Your task to perform on an android device: uninstall "Upside-Cash back on gas & food" Image 0: 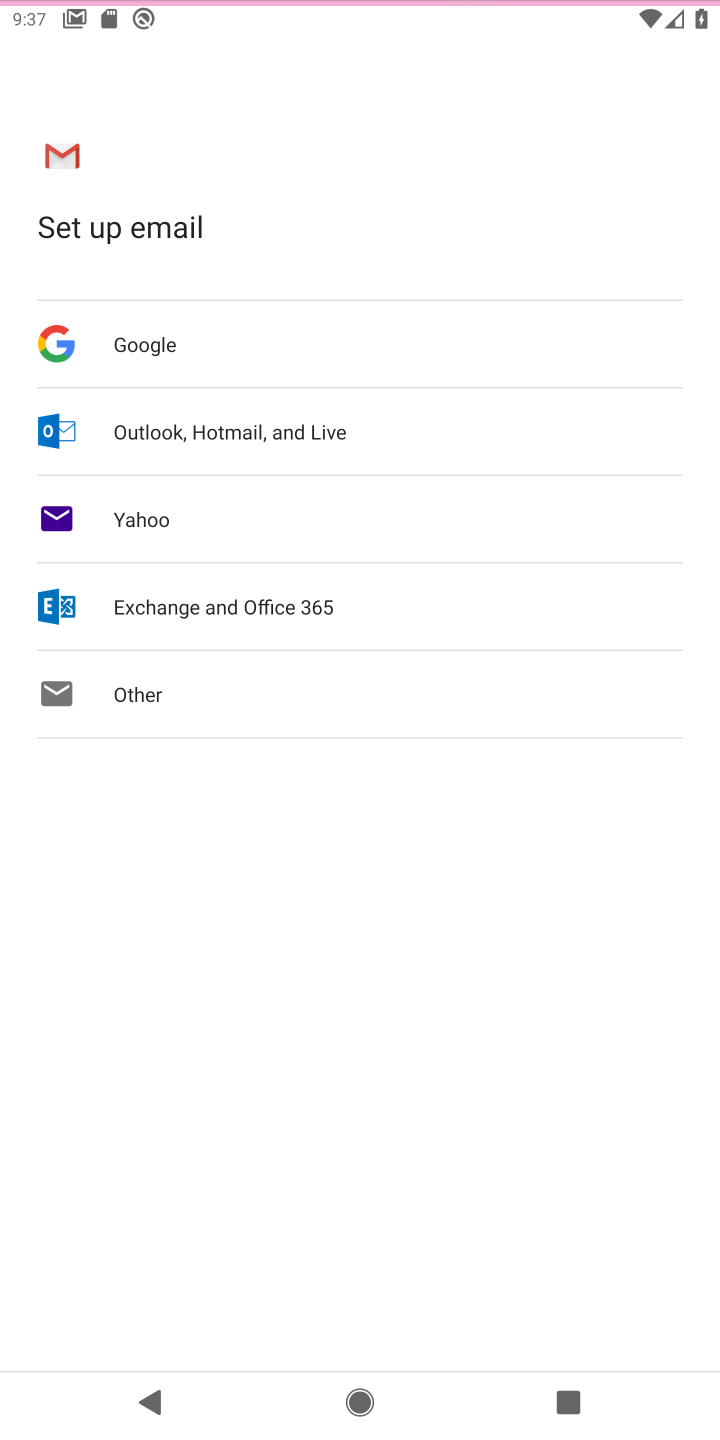
Step 0: click (175, 344)
Your task to perform on an android device: uninstall "Upside-Cash back on gas & food" Image 1: 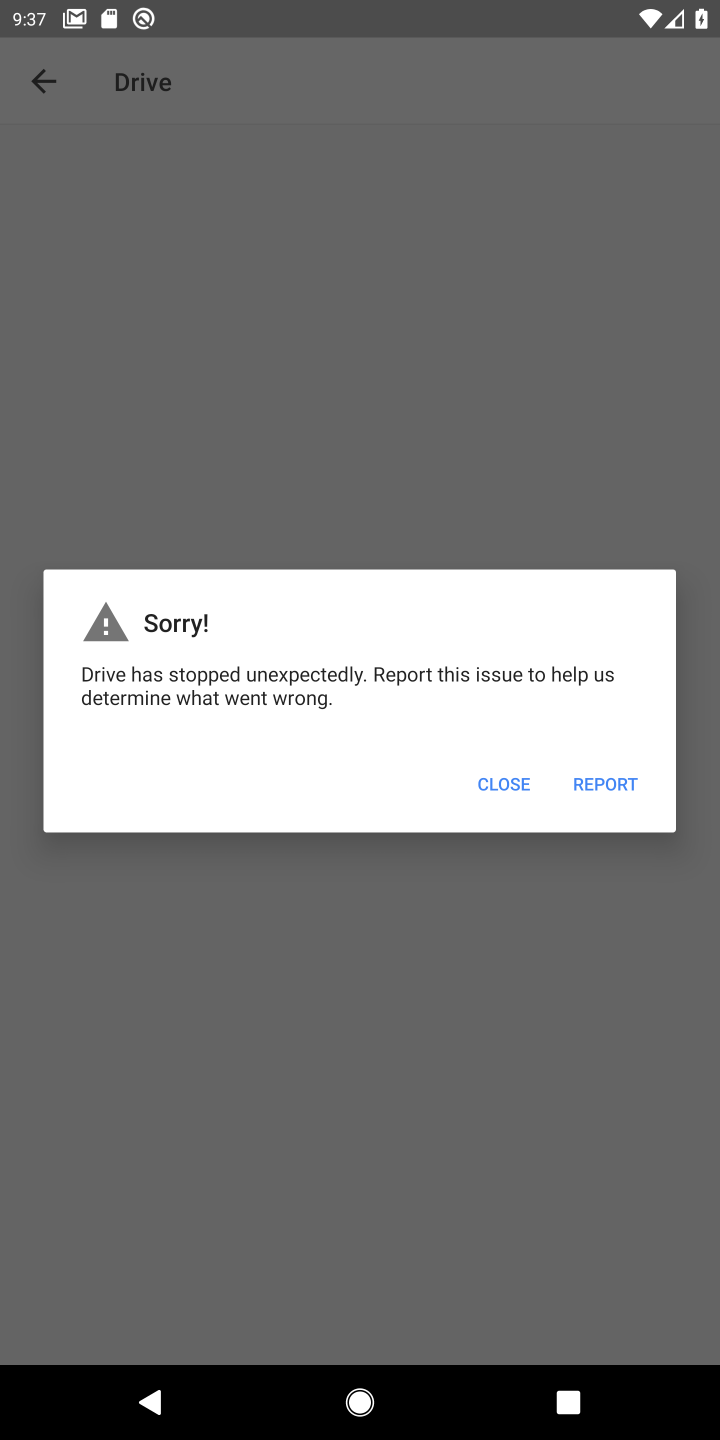
Step 1: press home button
Your task to perform on an android device: uninstall "Upside-Cash back on gas & food" Image 2: 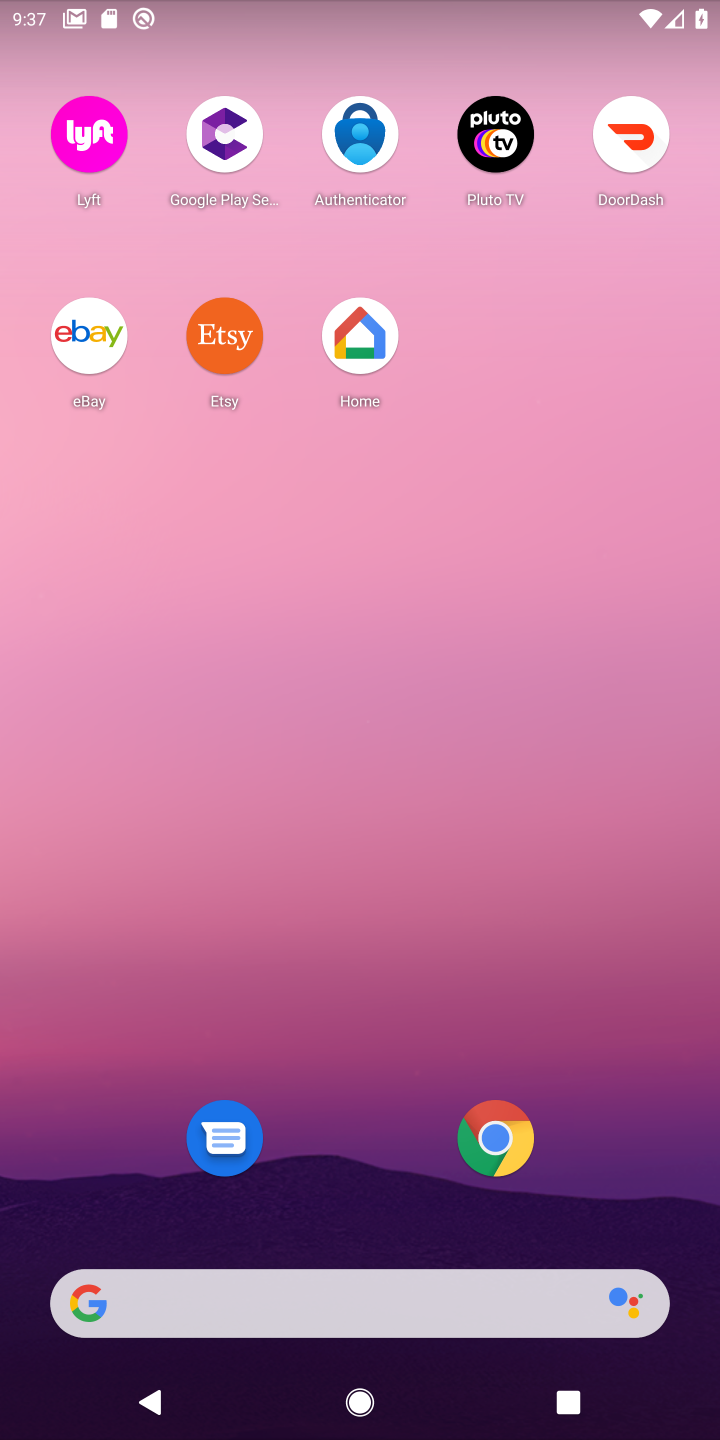
Step 2: drag from (347, 1001) to (158, 138)
Your task to perform on an android device: uninstall "Upside-Cash back on gas & food" Image 3: 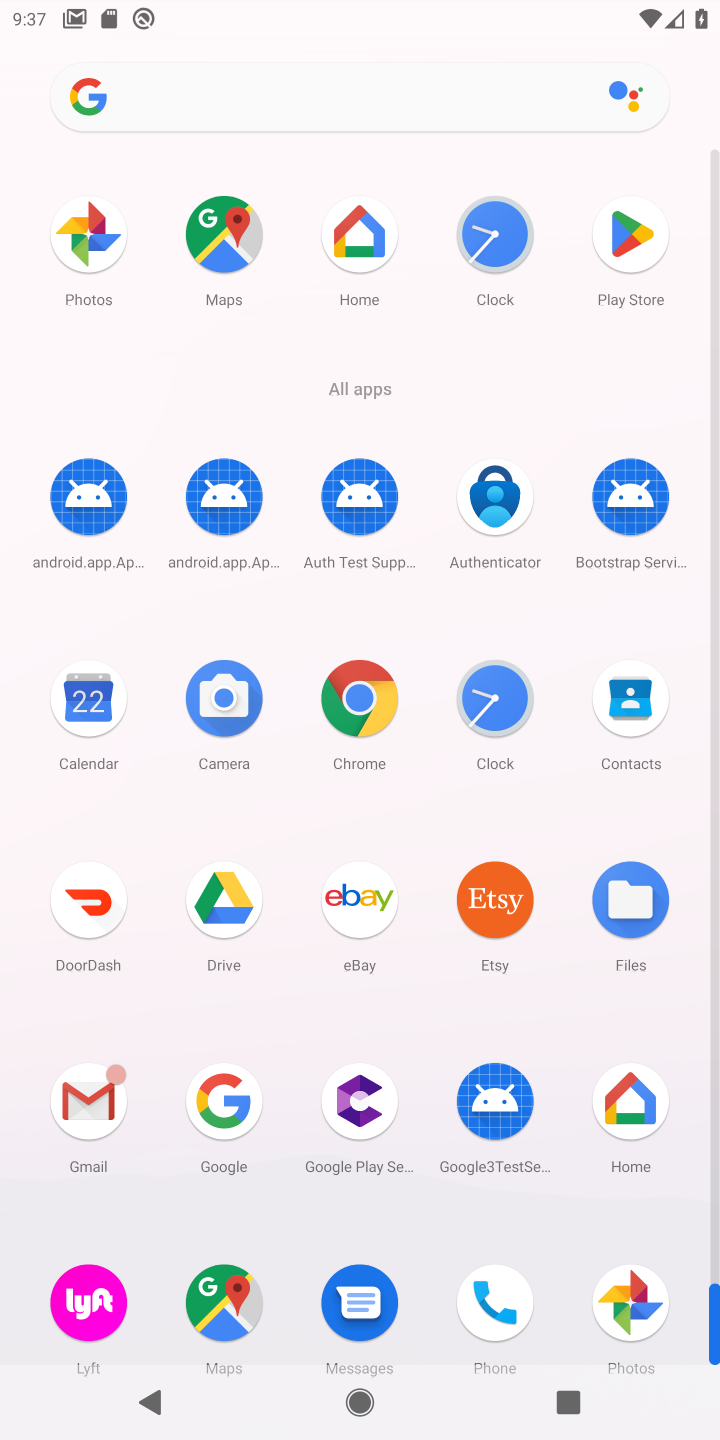
Step 3: click (615, 249)
Your task to perform on an android device: uninstall "Upside-Cash back on gas & food" Image 4: 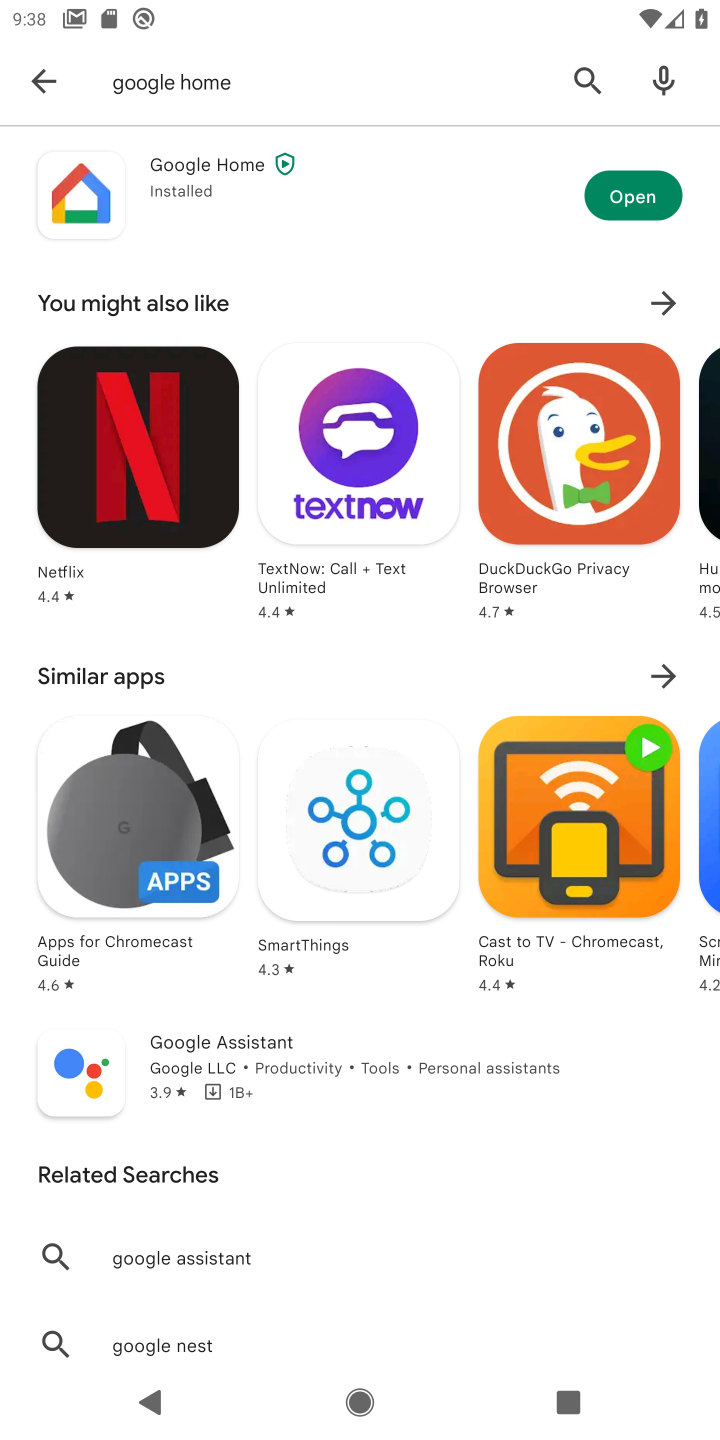
Step 4: type "Upside-Cash back "
Your task to perform on an android device: uninstall "Upside-Cash back on gas & food" Image 5: 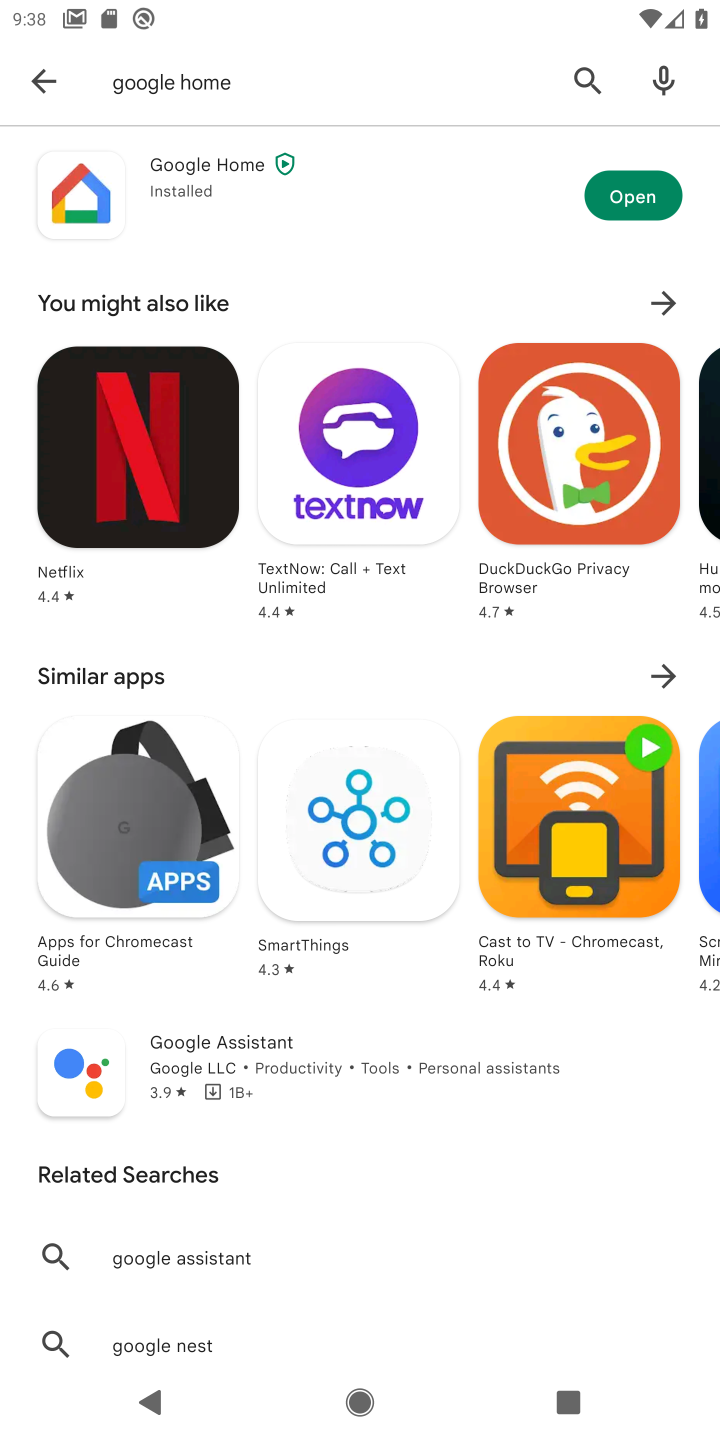
Step 5: type ""
Your task to perform on an android device: uninstall "Upside-Cash back on gas & food" Image 6: 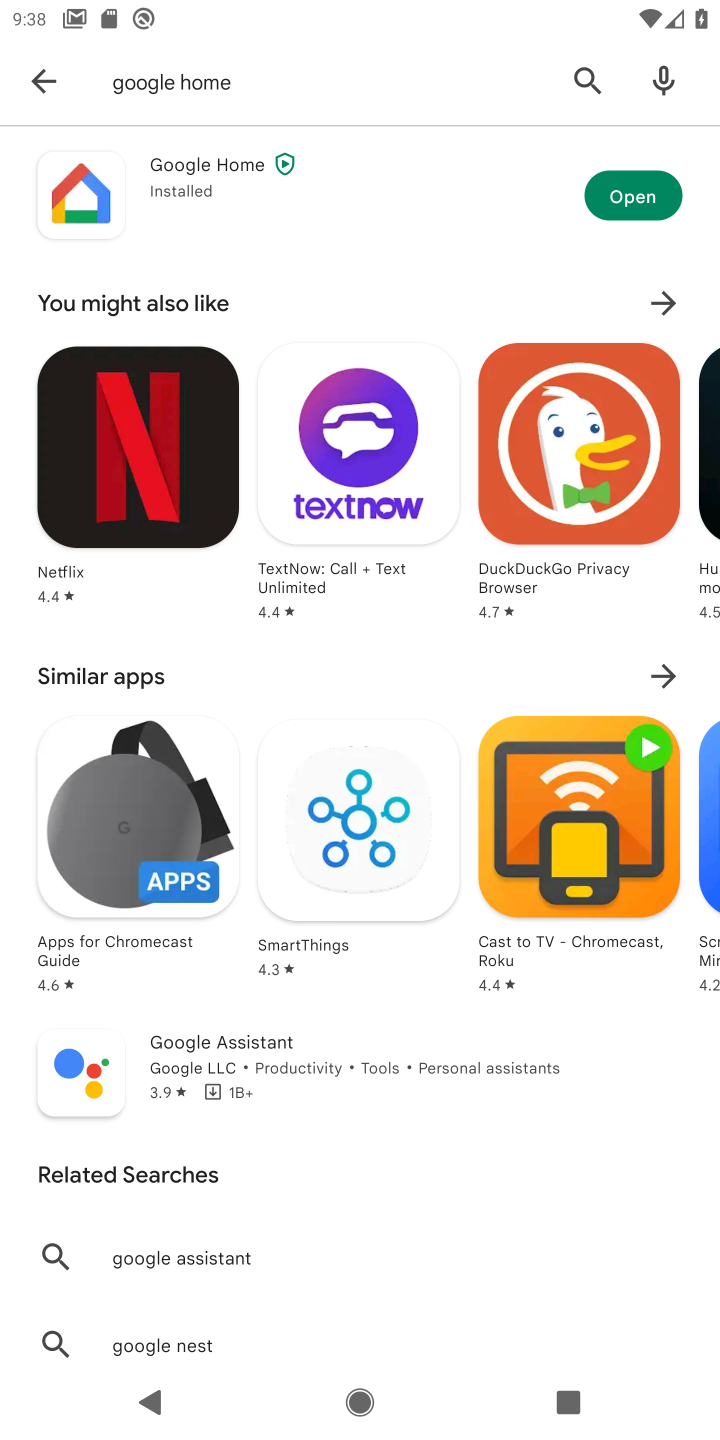
Step 6: click (576, 86)
Your task to perform on an android device: uninstall "Upside-Cash back on gas & food" Image 7: 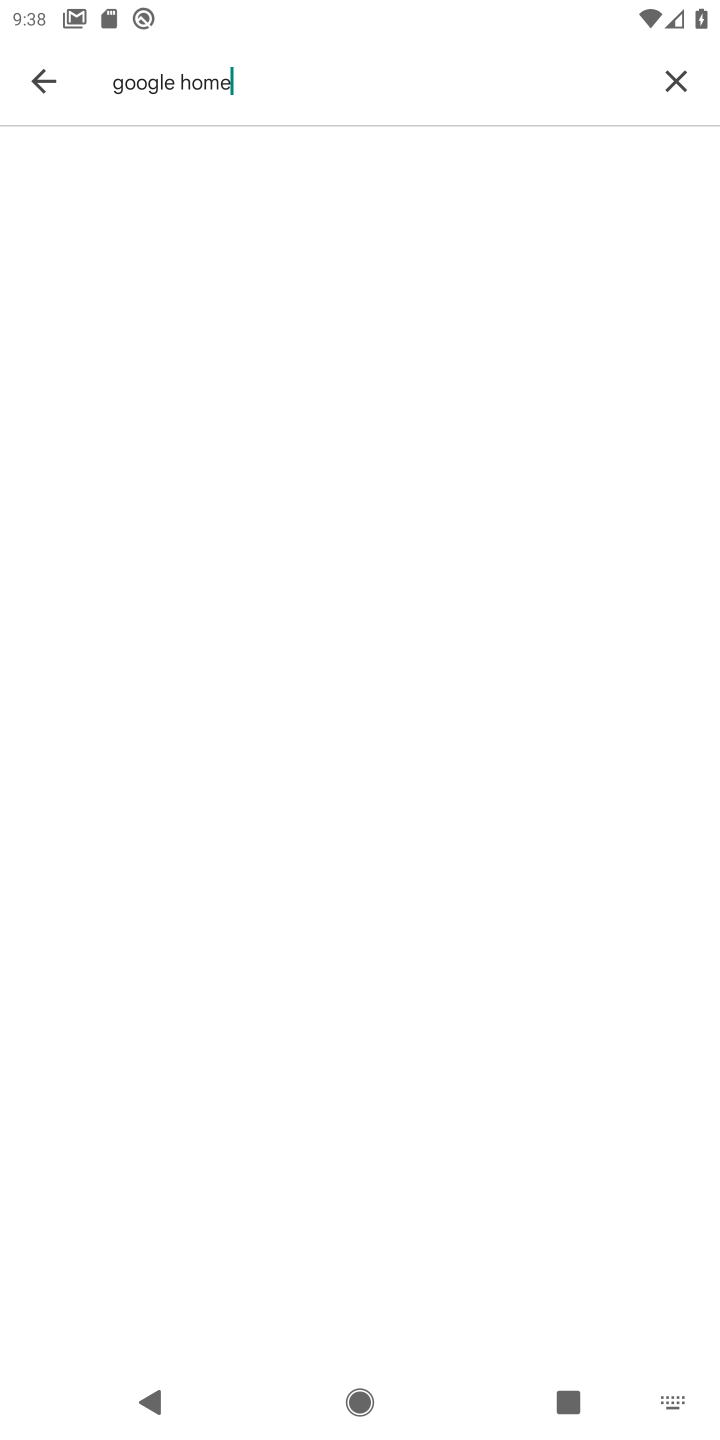
Step 7: click (579, 77)
Your task to perform on an android device: uninstall "Upside-Cash back on gas & food" Image 8: 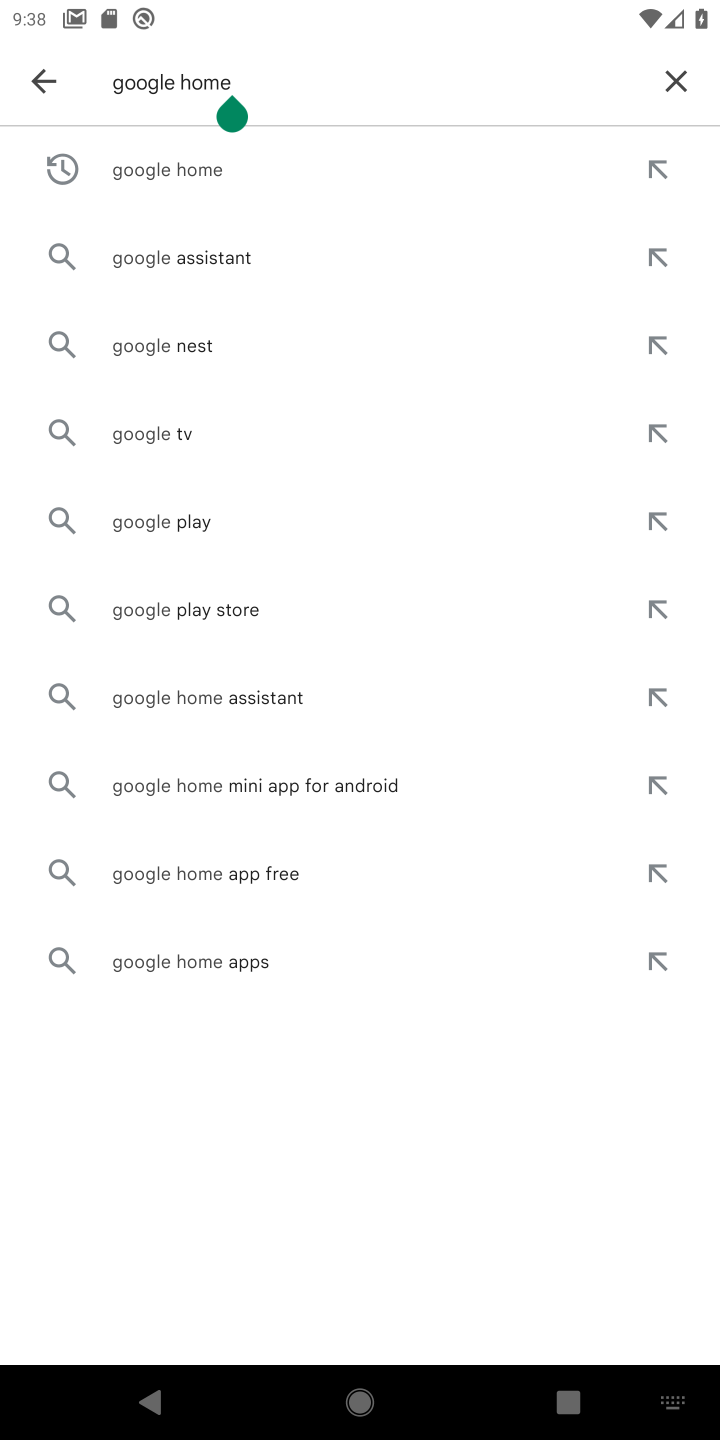
Step 8: click (671, 77)
Your task to perform on an android device: uninstall "Upside-Cash back on gas & food" Image 9: 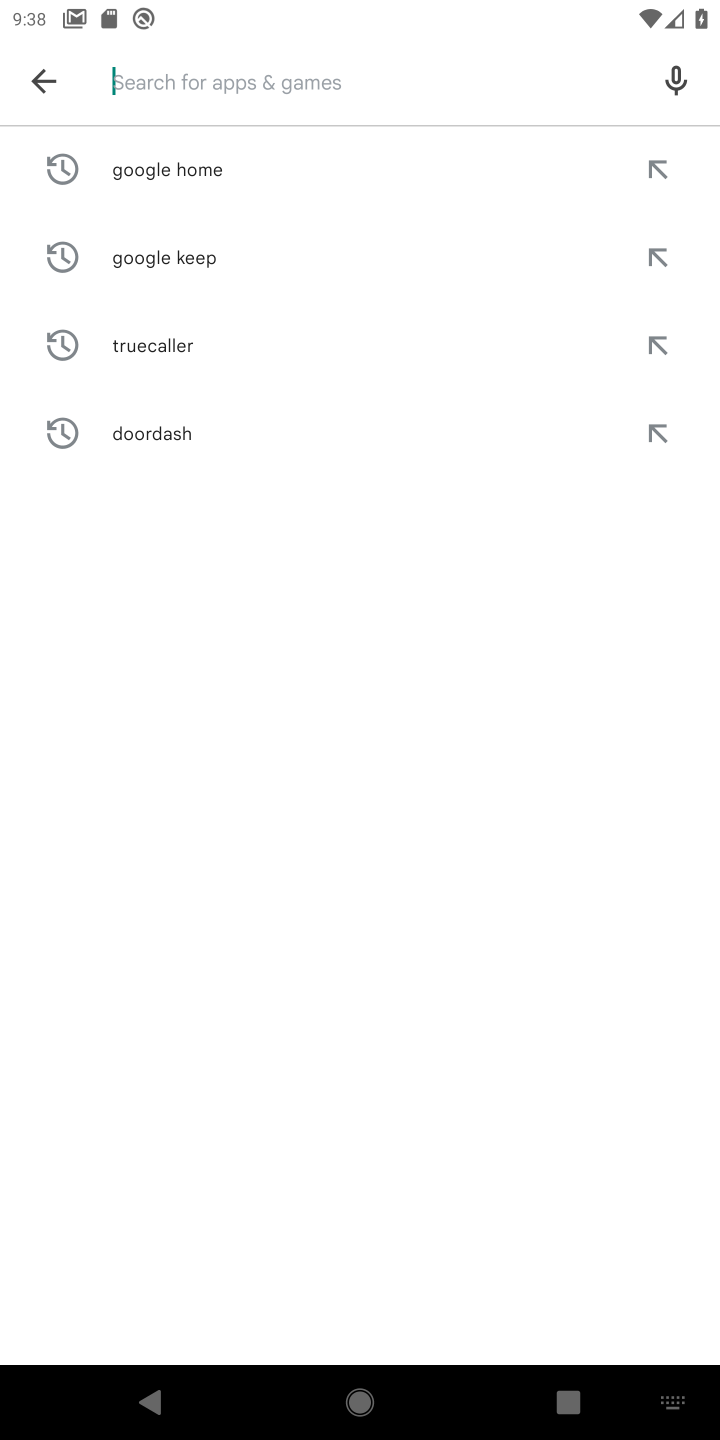
Step 9: type ""
Your task to perform on an android device: uninstall "Upside-Cash back on gas & food" Image 10: 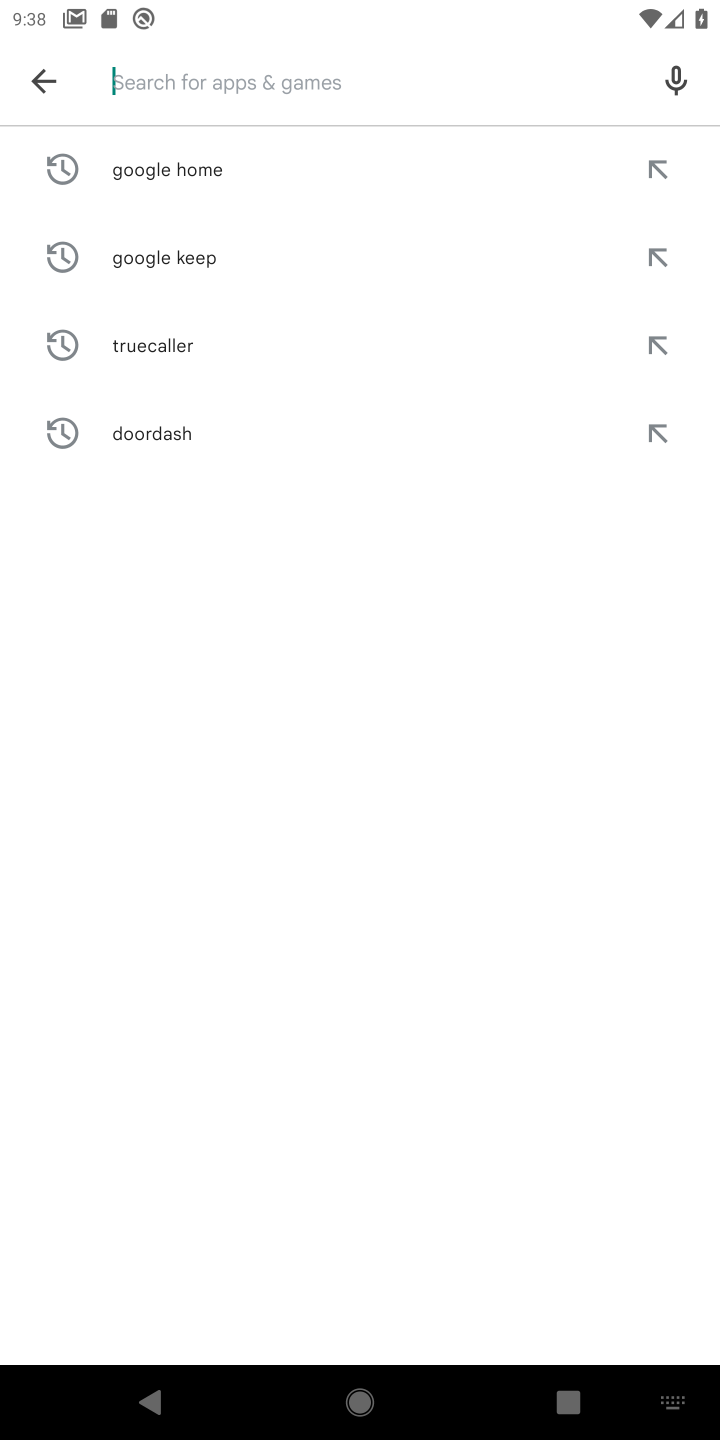
Step 10: type "Upside-Cash back on gas & food""
Your task to perform on an android device: uninstall "Upside-Cash back on gas & food" Image 11: 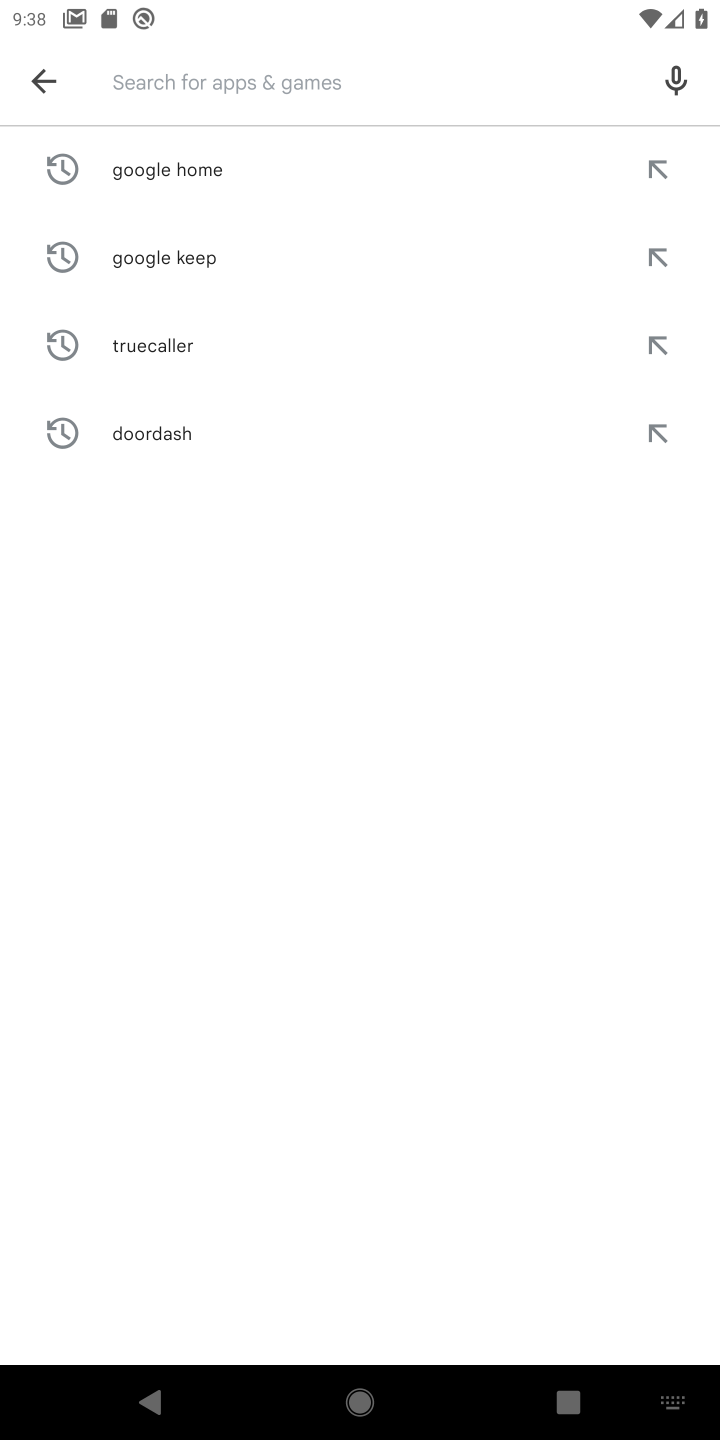
Step 11: type ""
Your task to perform on an android device: uninstall "Upside-Cash back on gas & food" Image 12: 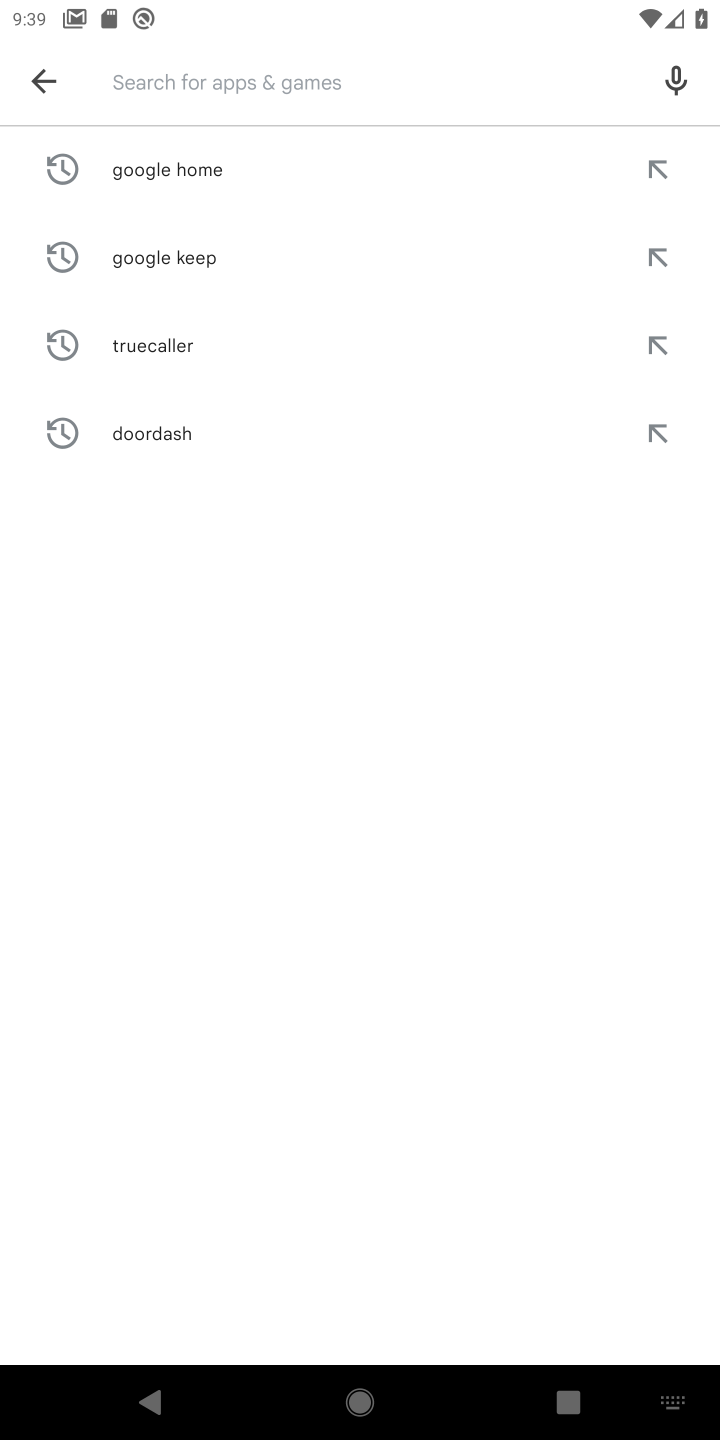
Step 12: type "upside cash back on gas and food"
Your task to perform on an android device: uninstall "Upside-Cash back on gas & food" Image 13: 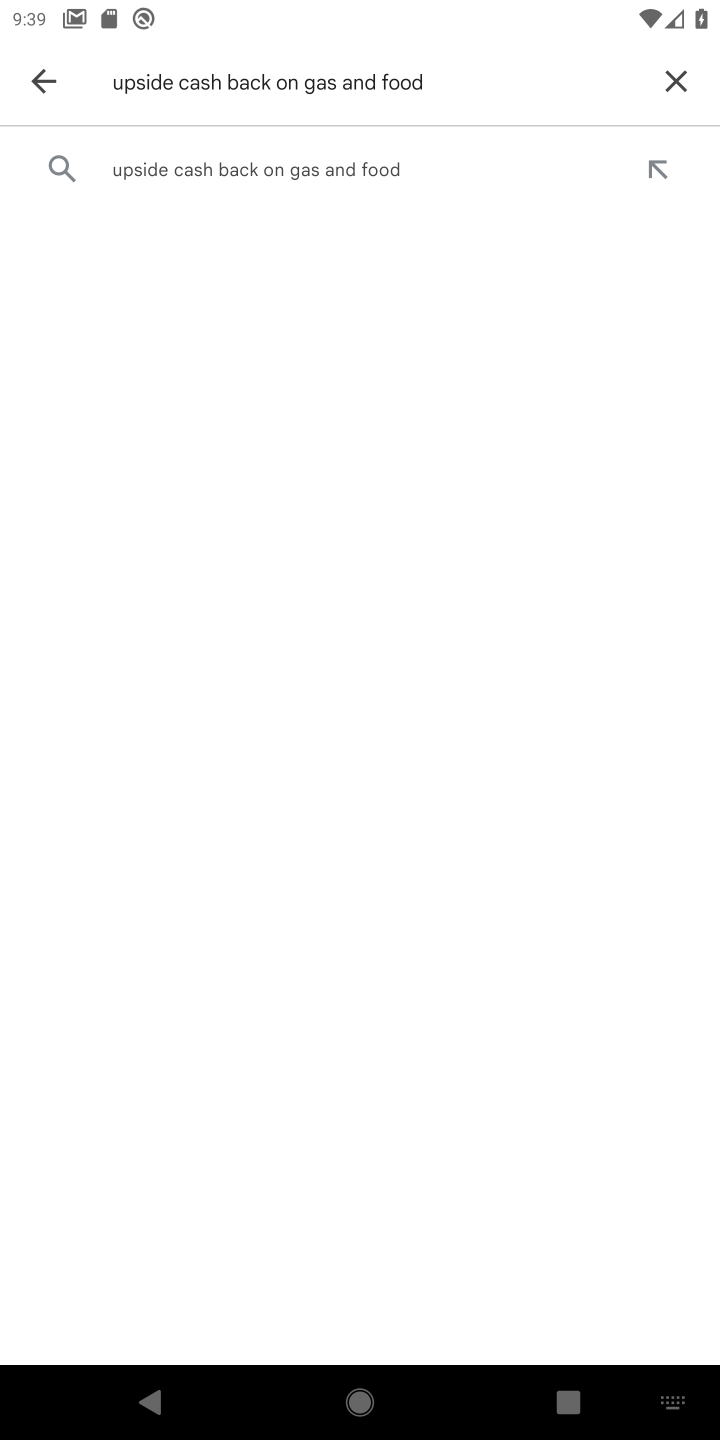
Step 13: click (437, 187)
Your task to perform on an android device: uninstall "Upside-Cash back on gas & food" Image 14: 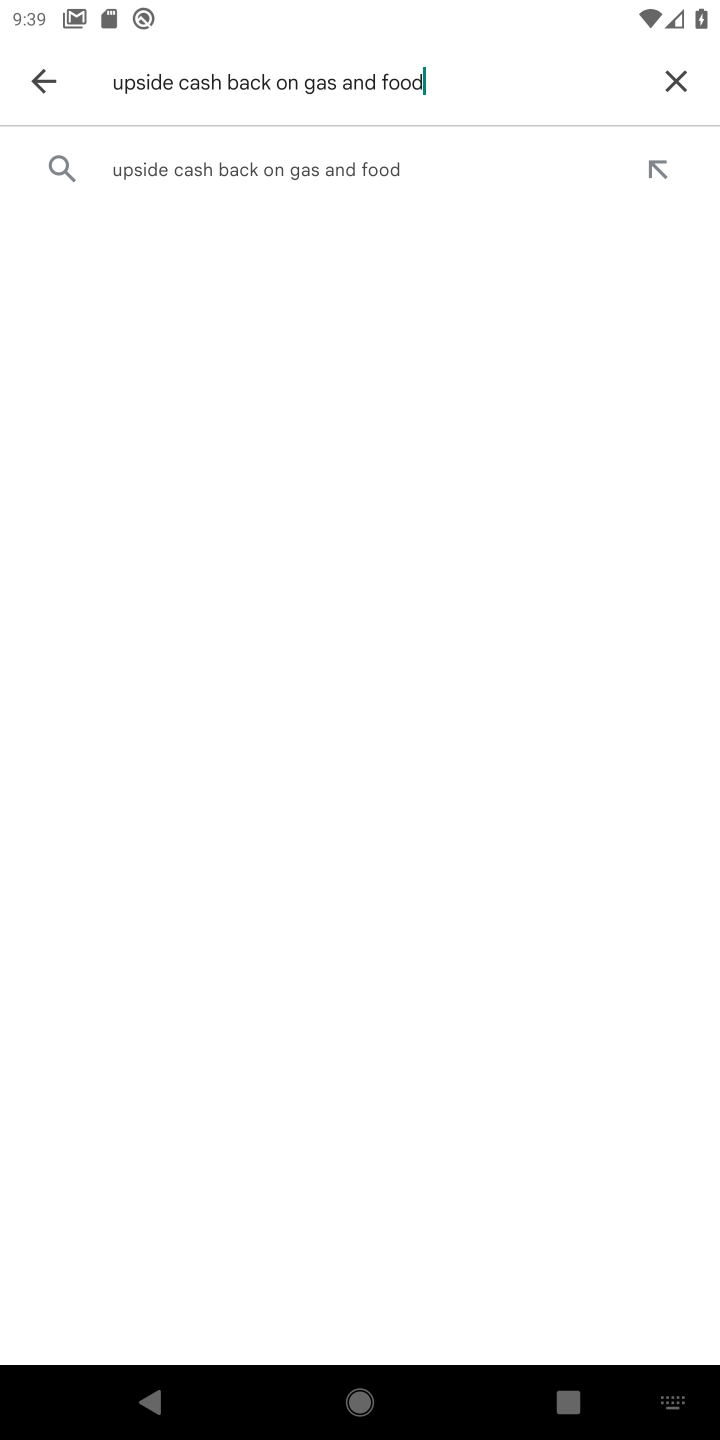
Step 14: click (386, 166)
Your task to perform on an android device: uninstall "Upside-Cash back on gas & food" Image 15: 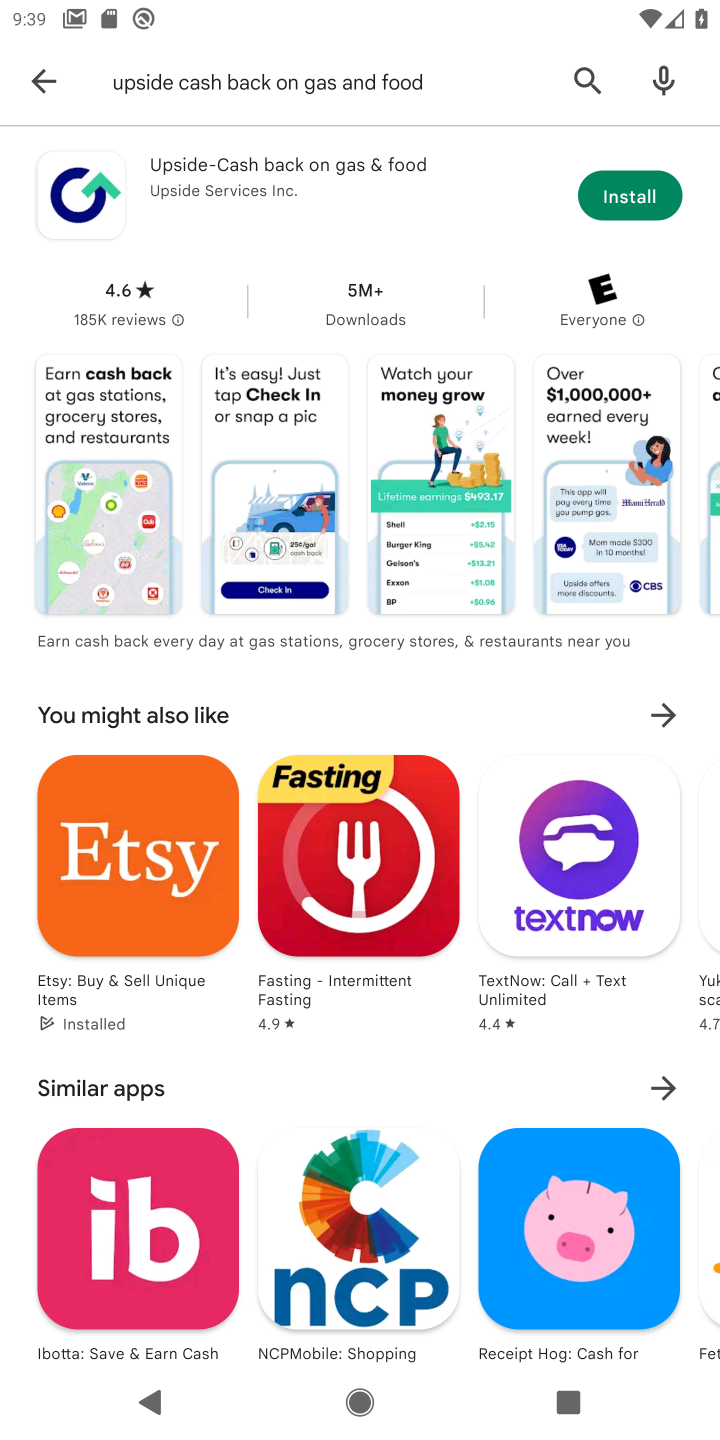
Step 15: task complete